Your task to perform on an android device: Open privacy settings Image 0: 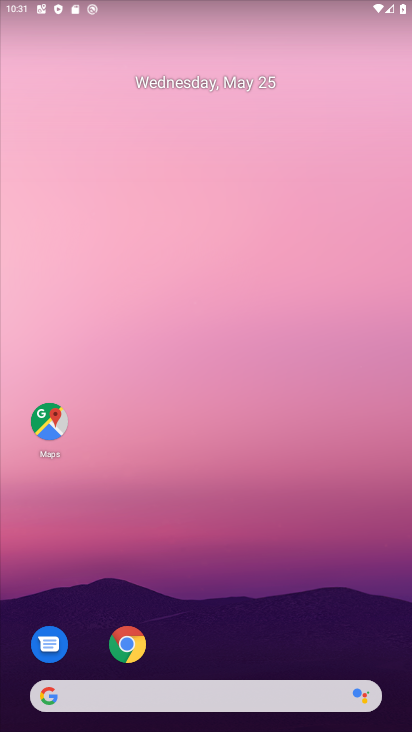
Step 0: drag from (192, 568) to (165, 112)
Your task to perform on an android device: Open privacy settings Image 1: 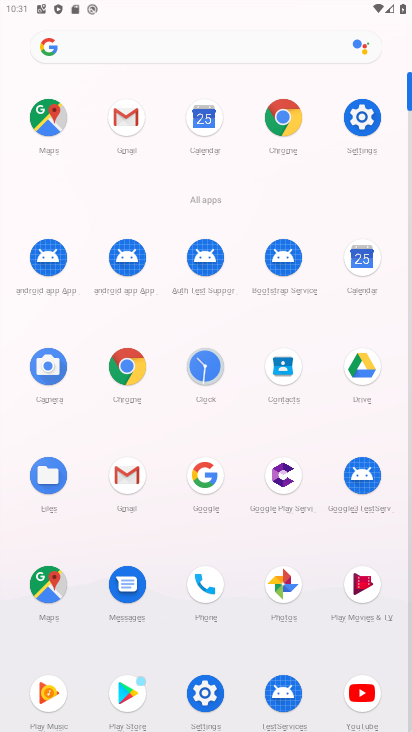
Step 1: click (361, 115)
Your task to perform on an android device: Open privacy settings Image 2: 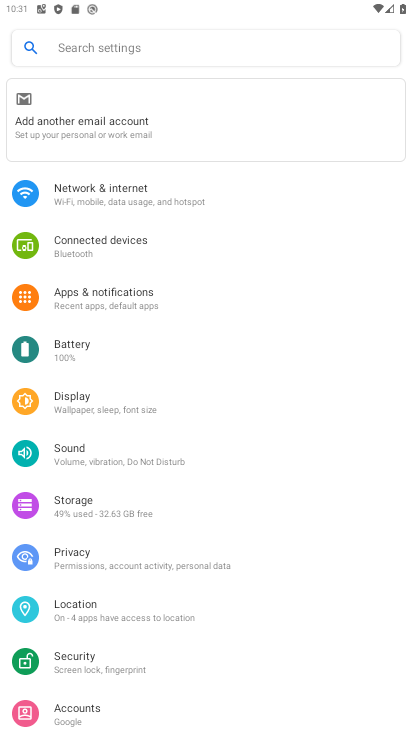
Step 2: click (70, 554)
Your task to perform on an android device: Open privacy settings Image 3: 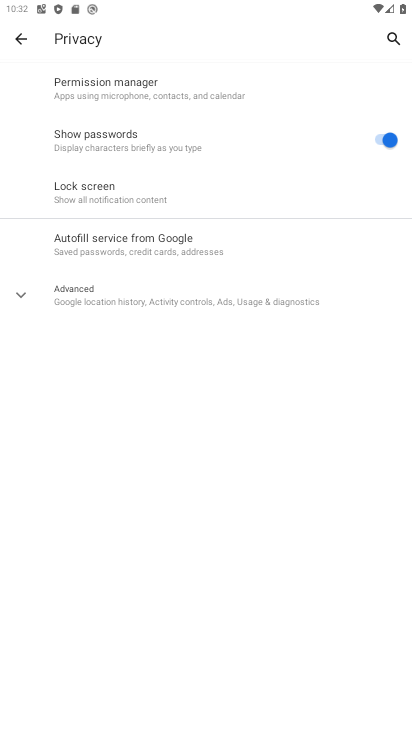
Step 3: task complete